Your task to perform on an android device: Open calendar and show me the third week of next month Image 0: 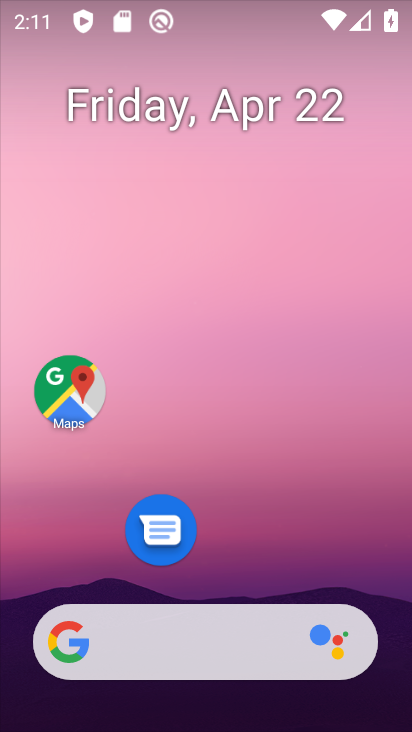
Step 0: drag from (237, 560) to (237, 13)
Your task to perform on an android device: Open calendar and show me the third week of next month Image 1: 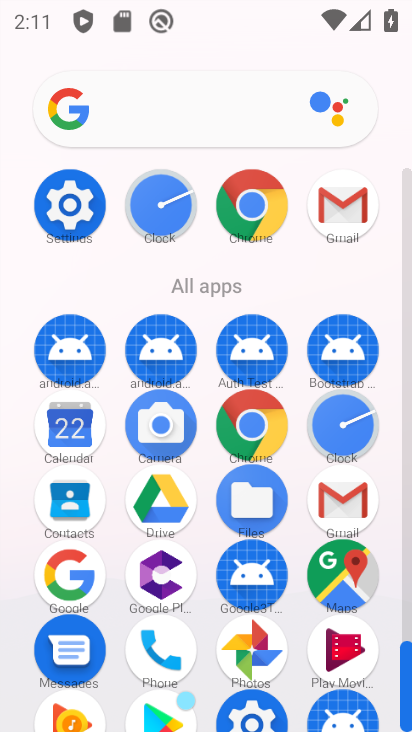
Step 1: click (73, 437)
Your task to perform on an android device: Open calendar and show me the third week of next month Image 2: 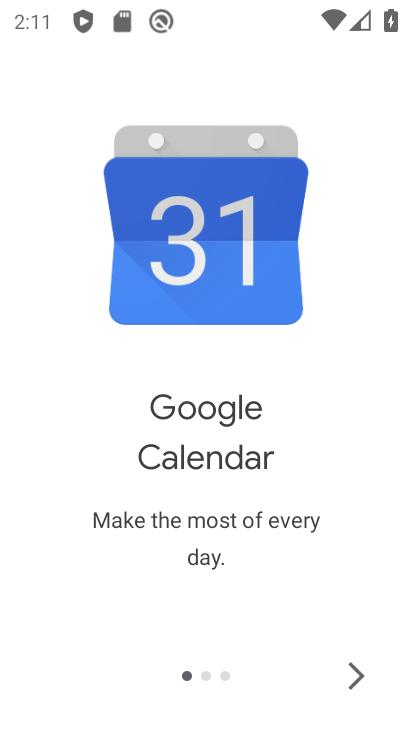
Step 2: click (352, 679)
Your task to perform on an android device: Open calendar and show me the third week of next month Image 3: 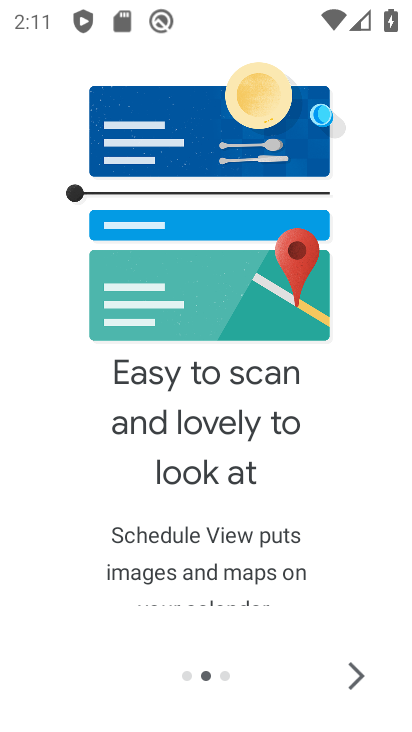
Step 3: click (353, 678)
Your task to perform on an android device: Open calendar and show me the third week of next month Image 4: 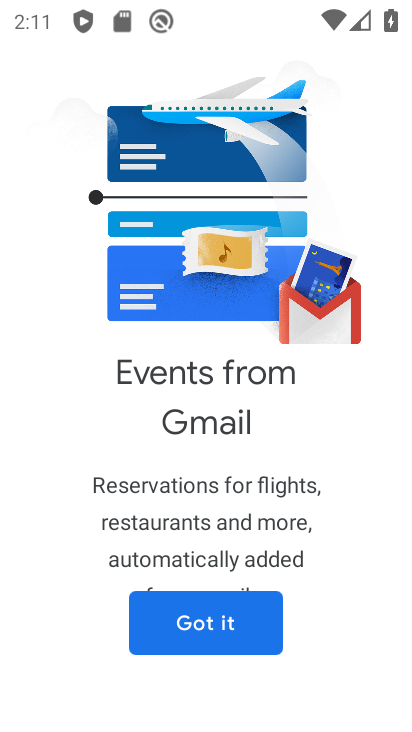
Step 4: click (209, 627)
Your task to perform on an android device: Open calendar and show me the third week of next month Image 5: 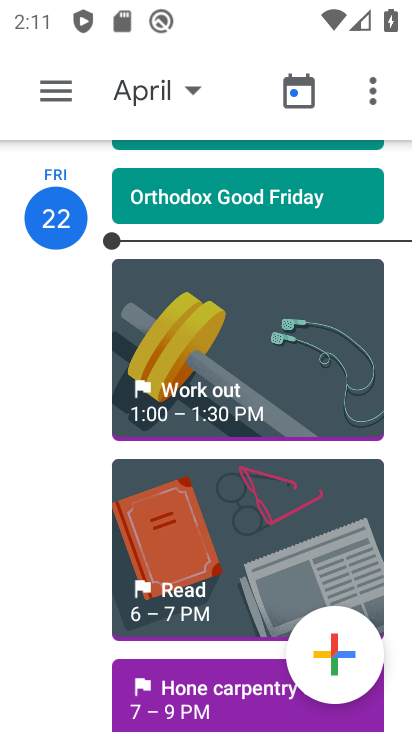
Step 5: click (60, 89)
Your task to perform on an android device: Open calendar and show me the third week of next month Image 6: 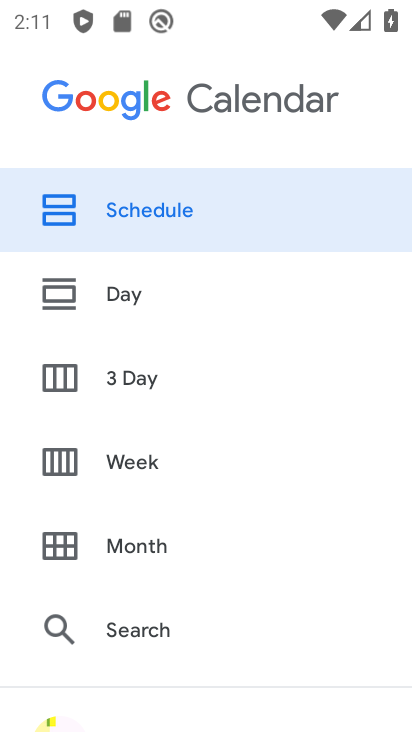
Step 6: click (131, 460)
Your task to perform on an android device: Open calendar and show me the third week of next month Image 7: 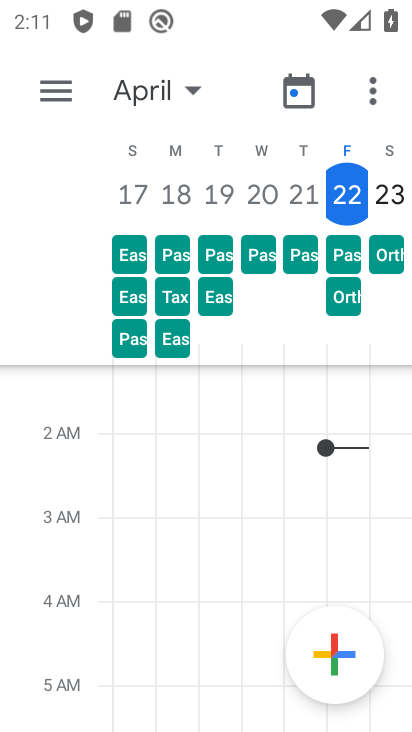
Step 7: click (203, 79)
Your task to perform on an android device: Open calendar and show me the third week of next month Image 8: 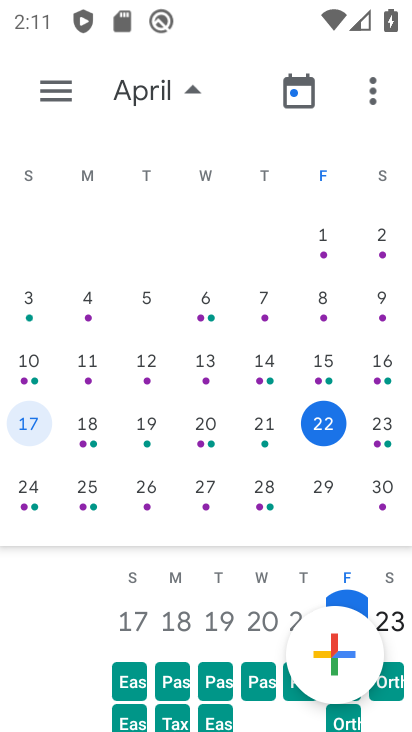
Step 8: drag from (359, 321) to (8, 328)
Your task to perform on an android device: Open calendar and show me the third week of next month Image 9: 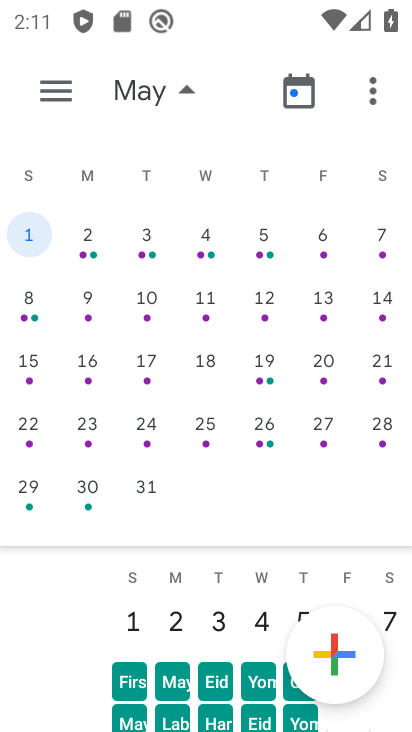
Step 9: click (152, 360)
Your task to perform on an android device: Open calendar and show me the third week of next month Image 10: 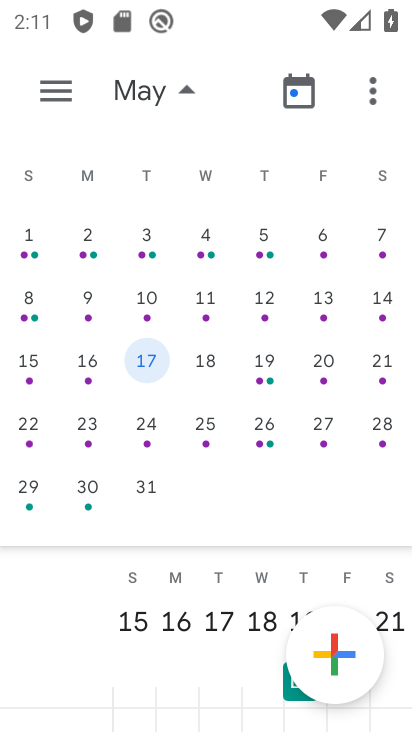
Step 10: task complete